Your task to perform on an android device: Go to Wikipedia Image 0: 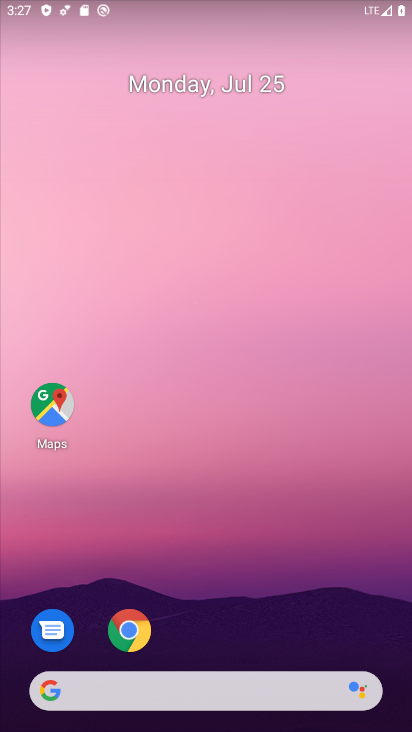
Step 0: click (135, 630)
Your task to perform on an android device: Go to Wikipedia Image 1: 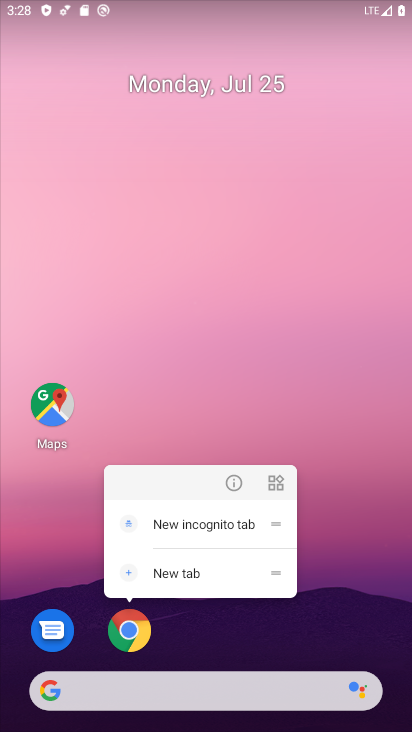
Step 1: click (143, 642)
Your task to perform on an android device: Go to Wikipedia Image 2: 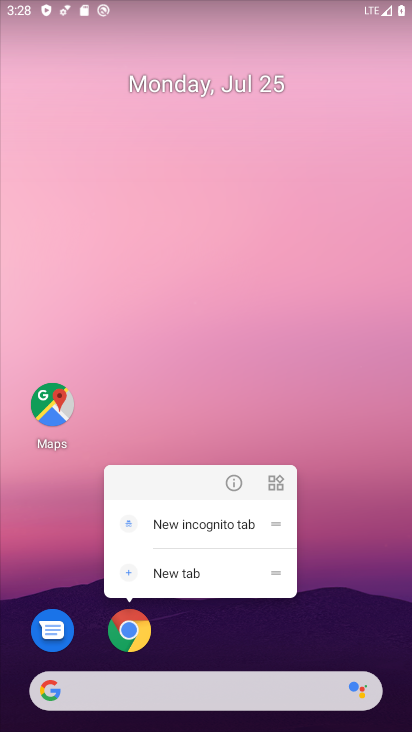
Step 2: click (143, 642)
Your task to perform on an android device: Go to Wikipedia Image 3: 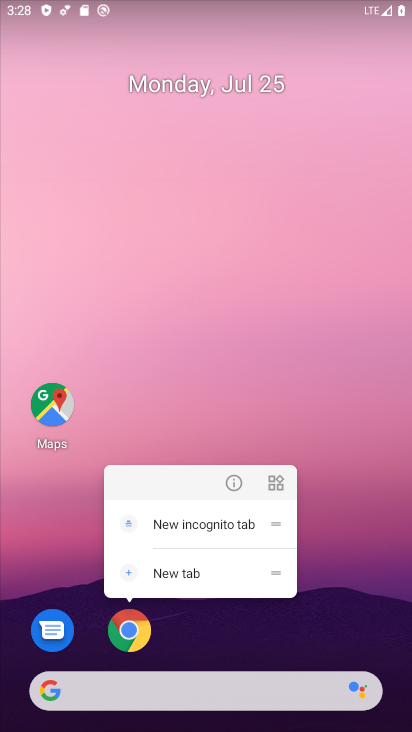
Step 3: click (123, 620)
Your task to perform on an android device: Go to Wikipedia Image 4: 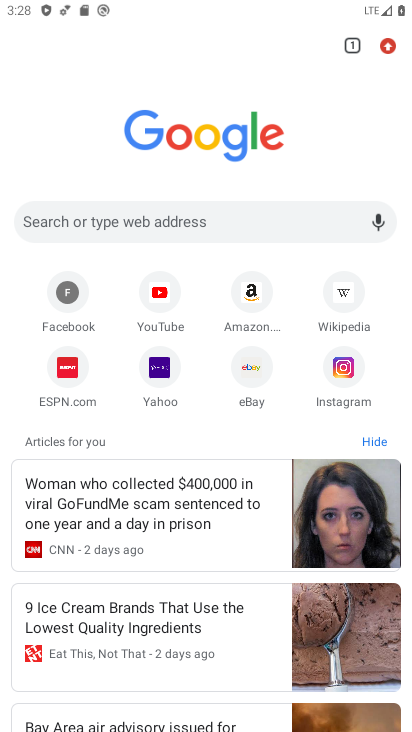
Step 4: click (334, 304)
Your task to perform on an android device: Go to Wikipedia Image 5: 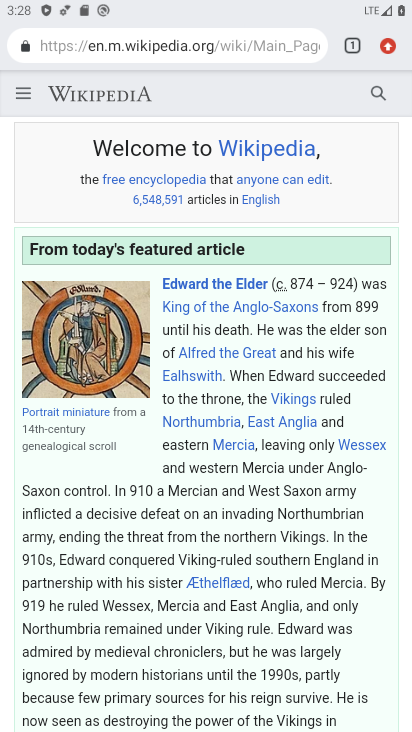
Step 5: task complete